Your task to perform on an android device: turn on wifi Image 0: 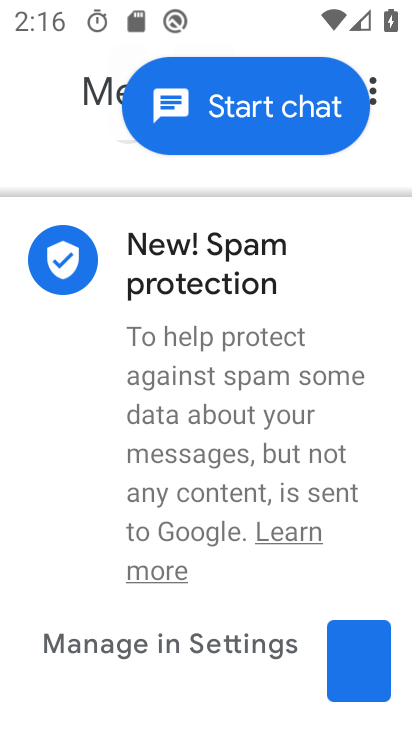
Step 0: press back button
Your task to perform on an android device: turn on wifi Image 1: 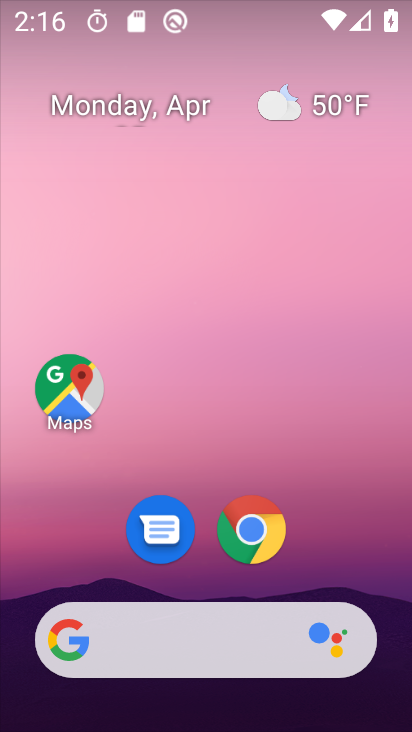
Step 1: drag from (395, 655) to (377, 140)
Your task to perform on an android device: turn on wifi Image 2: 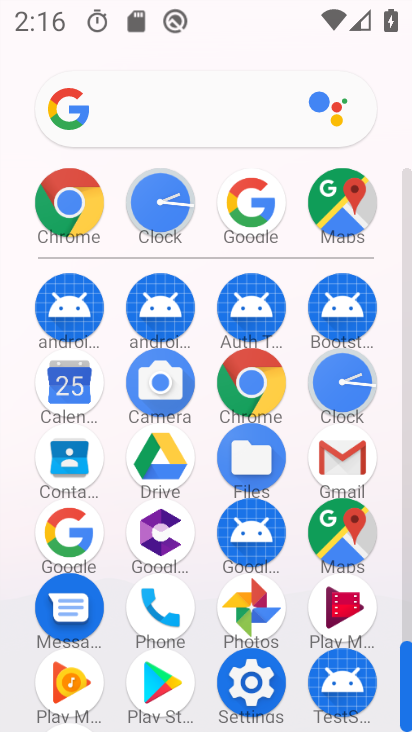
Step 2: click (255, 687)
Your task to perform on an android device: turn on wifi Image 3: 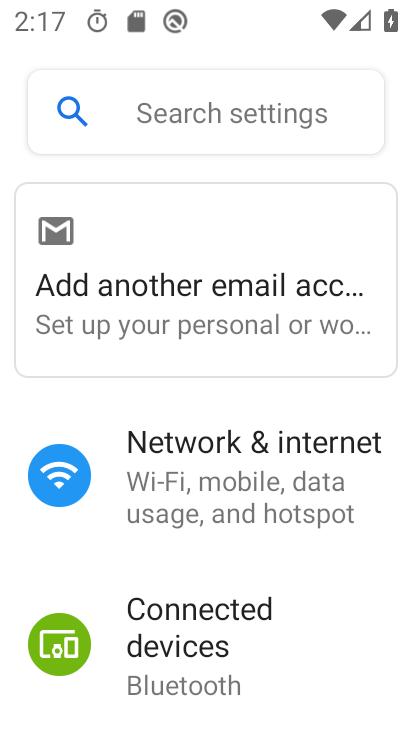
Step 3: click (166, 471)
Your task to perform on an android device: turn on wifi Image 4: 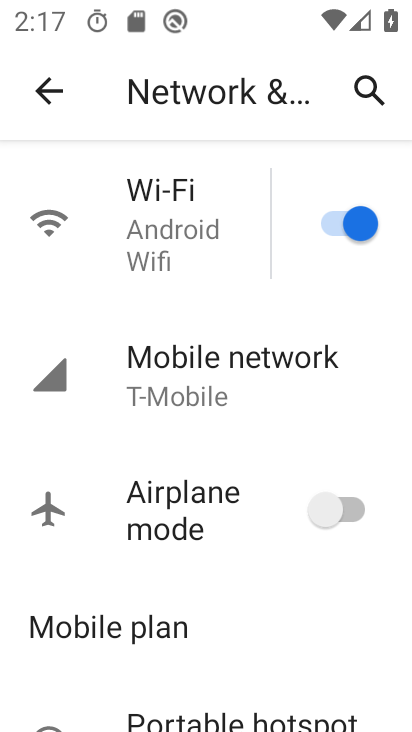
Step 4: click (325, 219)
Your task to perform on an android device: turn on wifi Image 5: 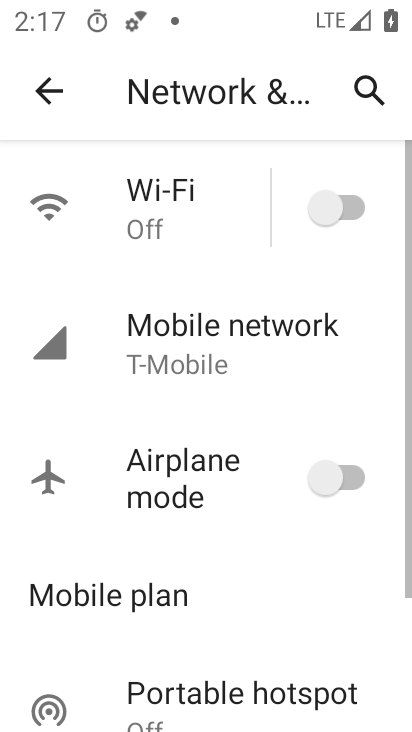
Step 5: click (361, 211)
Your task to perform on an android device: turn on wifi Image 6: 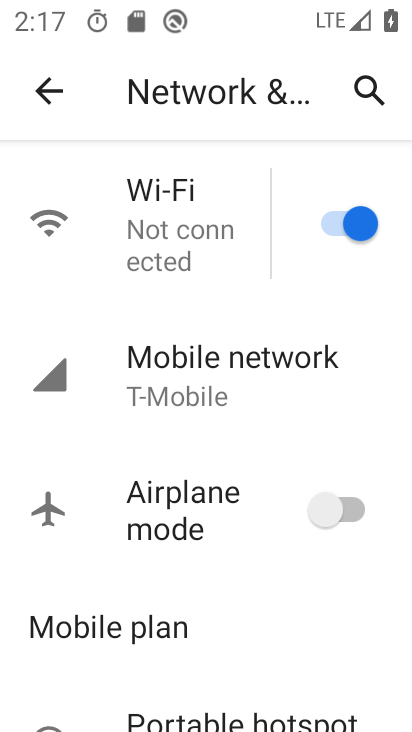
Step 6: task complete